Your task to perform on an android device: Open maps Image 0: 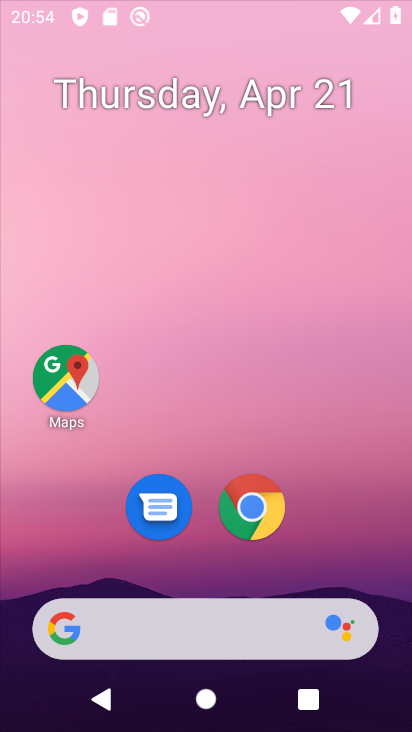
Step 0: click (251, 508)
Your task to perform on an android device: Open maps Image 1: 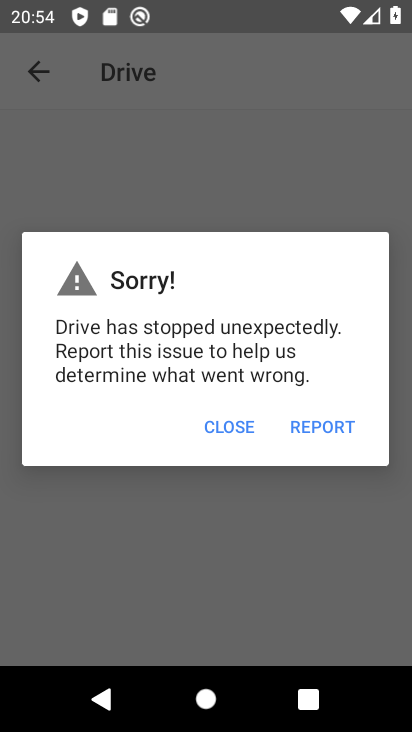
Step 1: click (217, 425)
Your task to perform on an android device: Open maps Image 2: 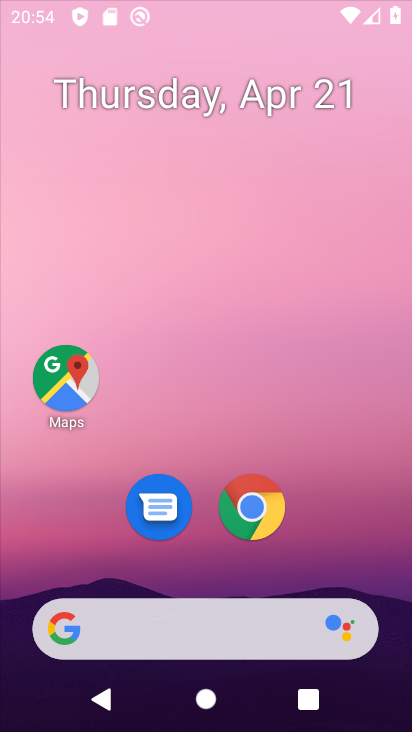
Step 2: press back button
Your task to perform on an android device: Open maps Image 3: 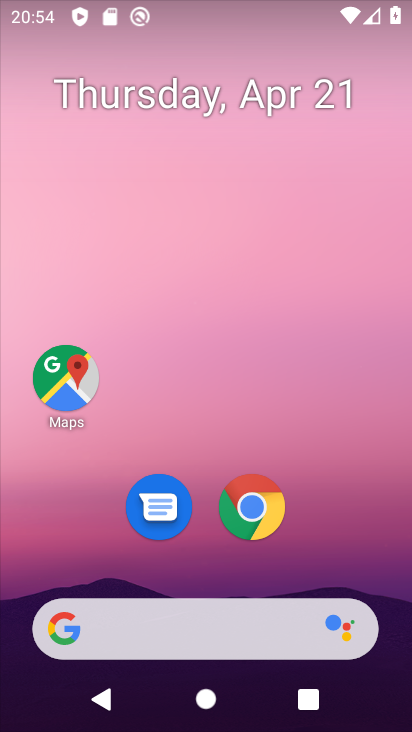
Step 3: click (57, 382)
Your task to perform on an android device: Open maps Image 4: 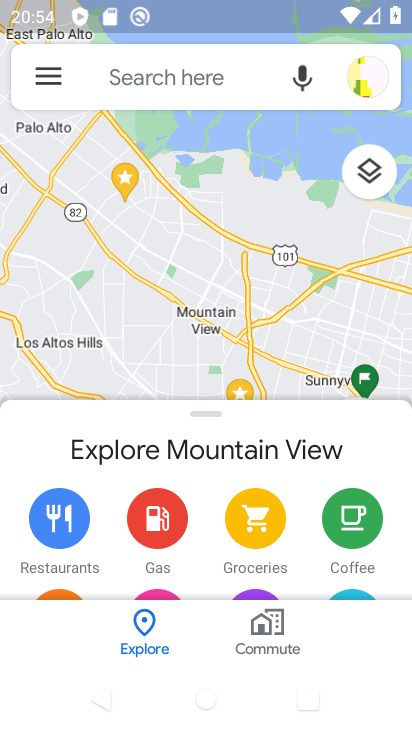
Step 4: task complete